Your task to perform on an android device: check storage Image 0: 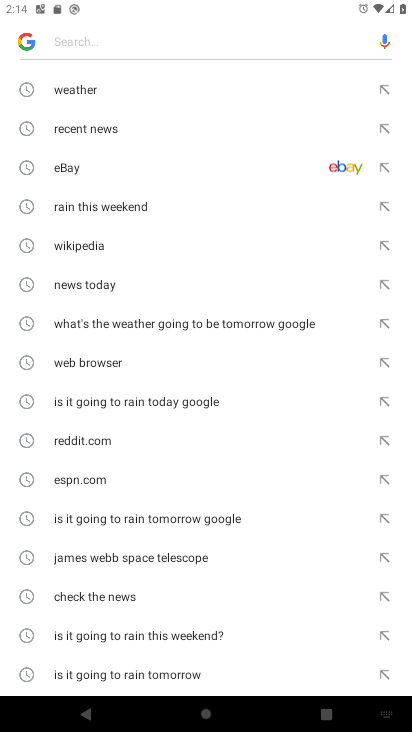
Step 0: press back button
Your task to perform on an android device: check storage Image 1: 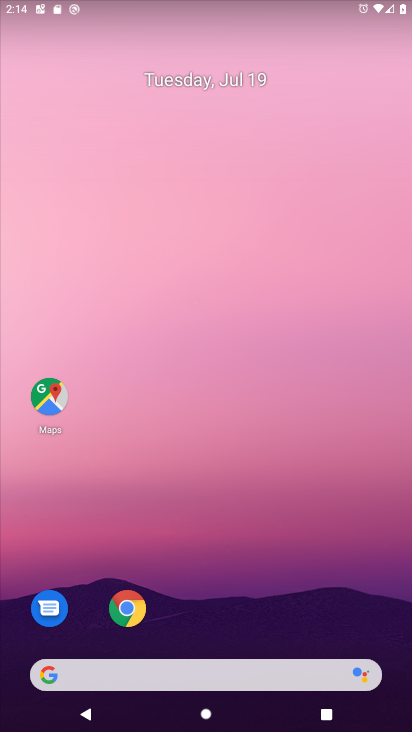
Step 1: drag from (291, 507) to (296, 142)
Your task to perform on an android device: check storage Image 2: 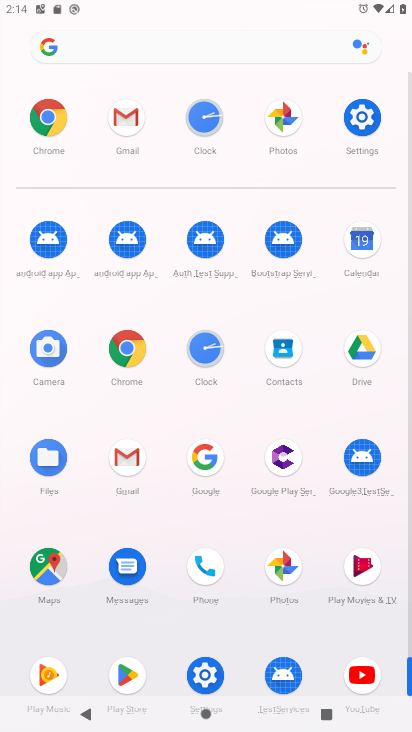
Step 2: click (366, 130)
Your task to perform on an android device: check storage Image 3: 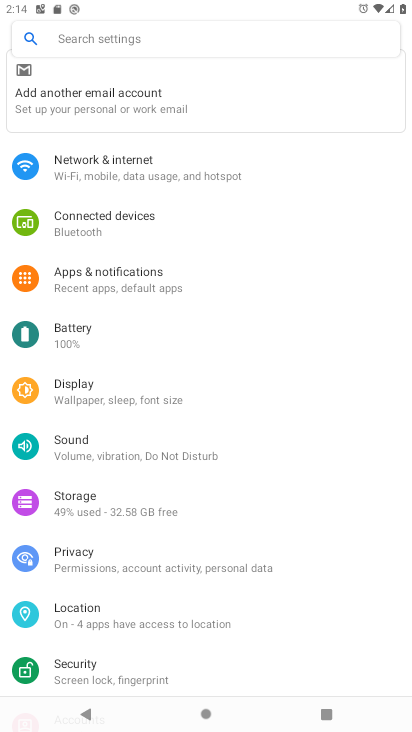
Step 3: click (136, 507)
Your task to perform on an android device: check storage Image 4: 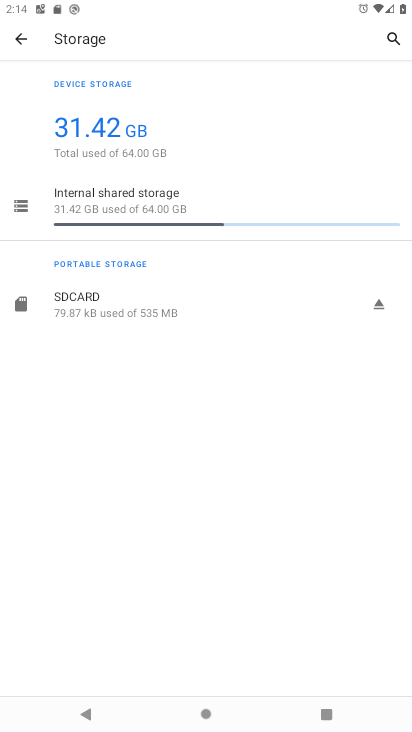
Step 4: task complete